Your task to perform on an android device: Add "jbl charge 4" to the cart on amazon, then select checkout. Image 0: 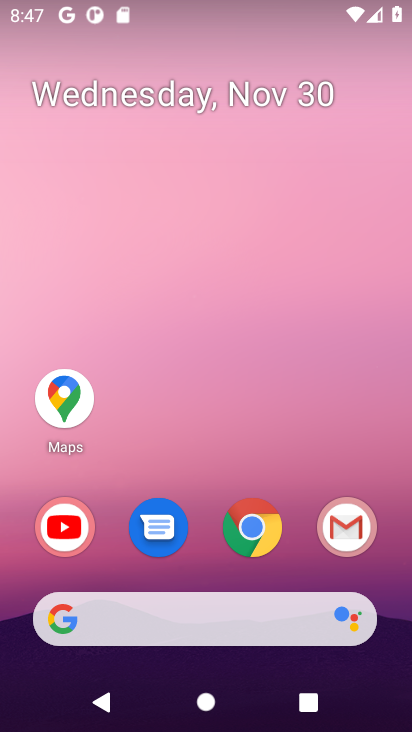
Step 0: click (250, 520)
Your task to perform on an android device: Add "jbl charge 4" to the cart on amazon, then select checkout. Image 1: 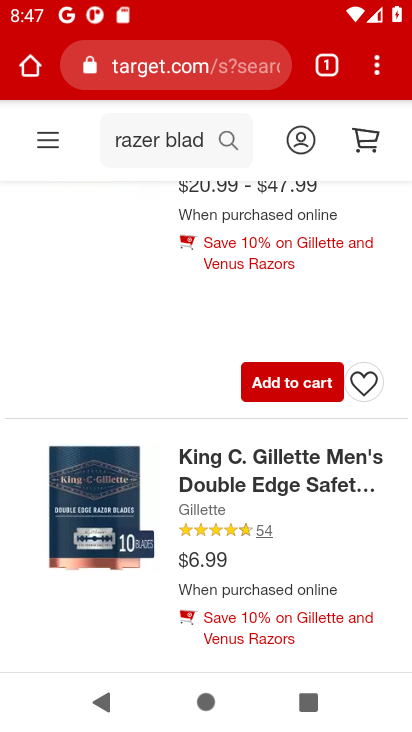
Step 1: click (219, 61)
Your task to perform on an android device: Add "jbl charge 4" to the cart on amazon, then select checkout. Image 2: 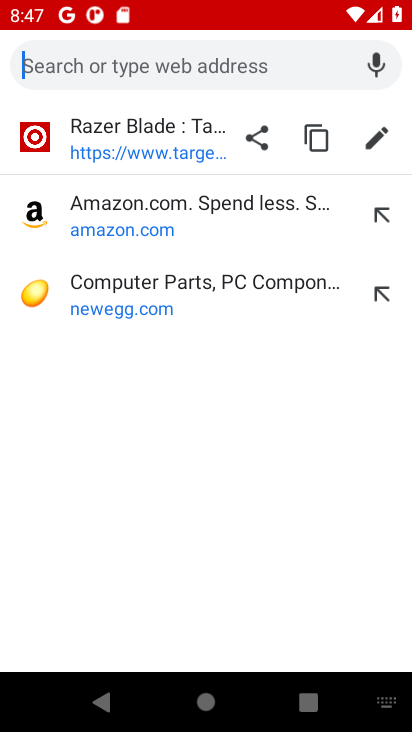
Step 2: click (152, 204)
Your task to perform on an android device: Add "jbl charge 4" to the cart on amazon, then select checkout. Image 3: 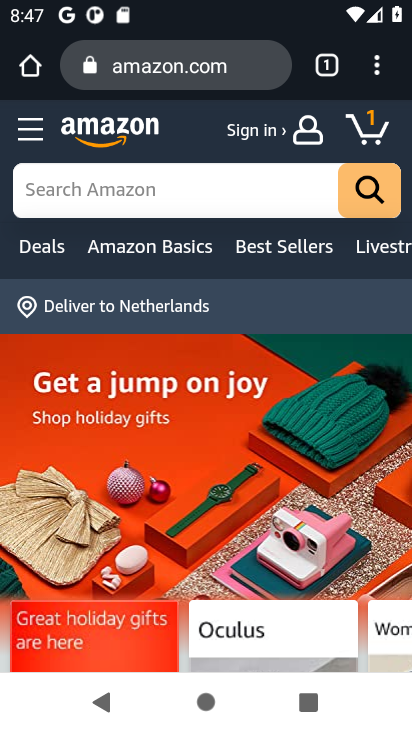
Step 3: click (221, 179)
Your task to perform on an android device: Add "jbl charge 4" to the cart on amazon, then select checkout. Image 4: 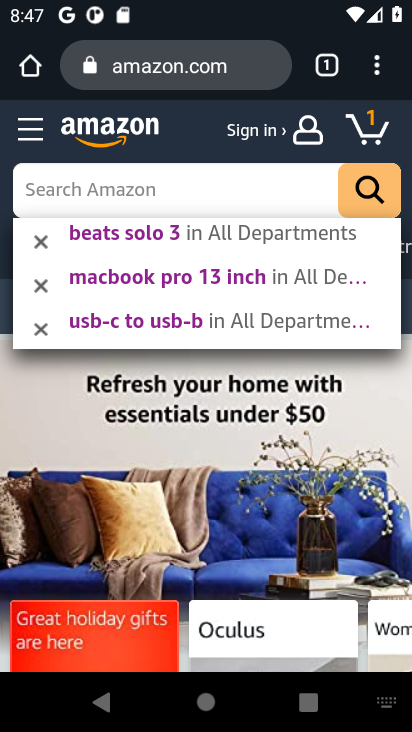
Step 4: type "jbl charge 4"
Your task to perform on an android device: Add "jbl charge 4" to the cart on amazon, then select checkout. Image 5: 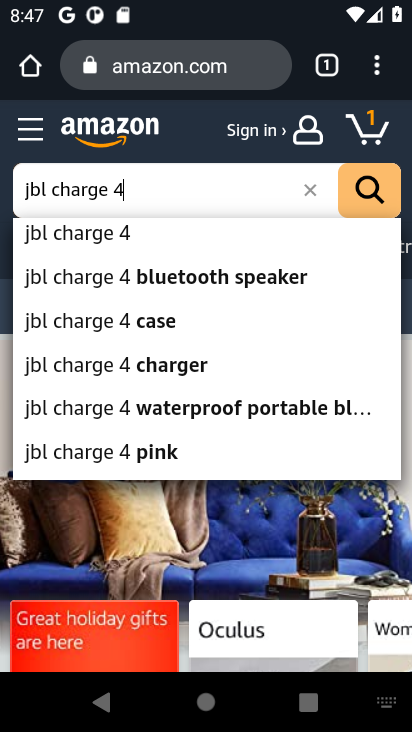
Step 5: press enter
Your task to perform on an android device: Add "jbl charge 4" to the cart on amazon, then select checkout. Image 6: 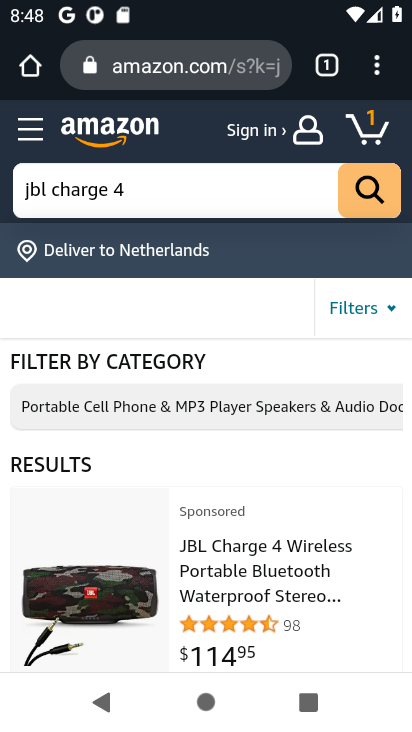
Step 6: drag from (231, 565) to (245, 345)
Your task to perform on an android device: Add "jbl charge 4" to the cart on amazon, then select checkout. Image 7: 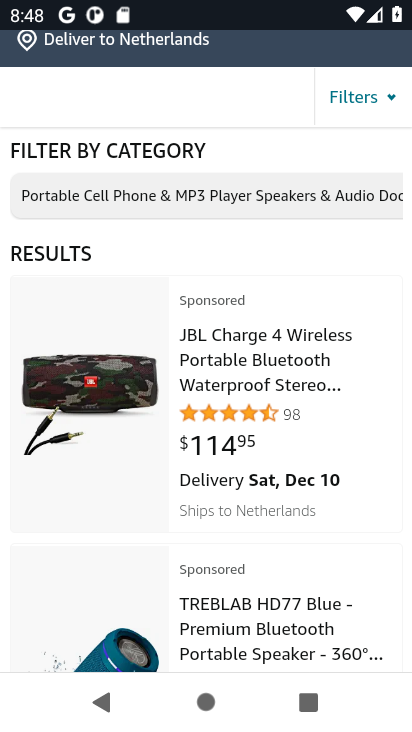
Step 7: click (96, 357)
Your task to perform on an android device: Add "jbl charge 4" to the cart on amazon, then select checkout. Image 8: 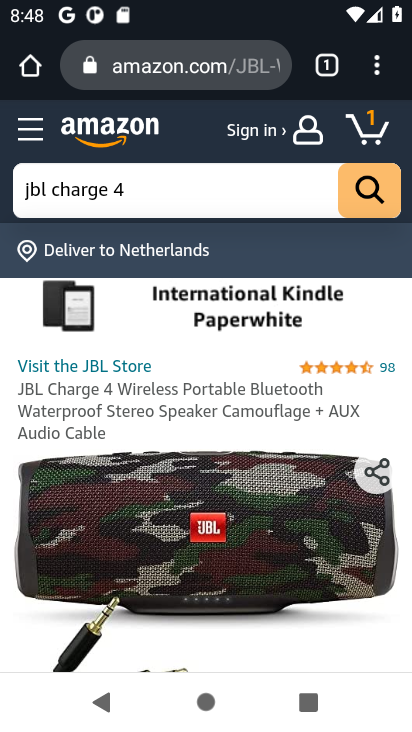
Step 8: drag from (272, 544) to (348, 21)
Your task to perform on an android device: Add "jbl charge 4" to the cart on amazon, then select checkout. Image 9: 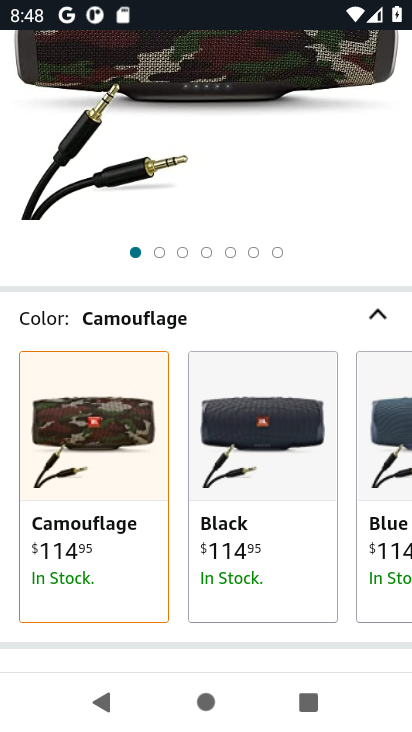
Step 9: drag from (317, 635) to (319, 0)
Your task to perform on an android device: Add "jbl charge 4" to the cart on amazon, then select checkout. Image 10: 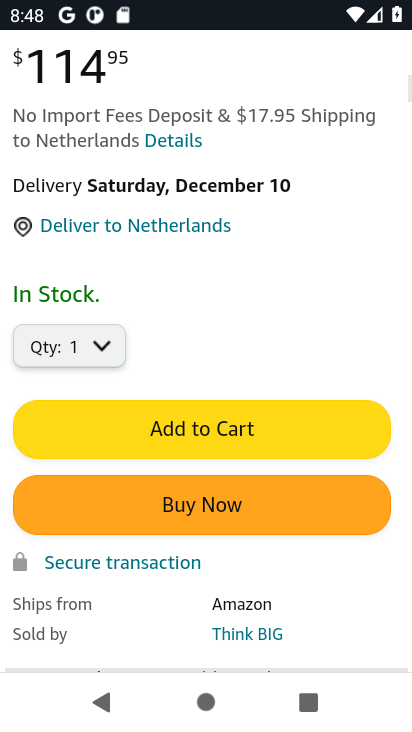
Step 10: click (259, 554)
Your task to perform on an android device: Add "jbl charge 4" to the cart on amazon, then select checkout. Image 11: 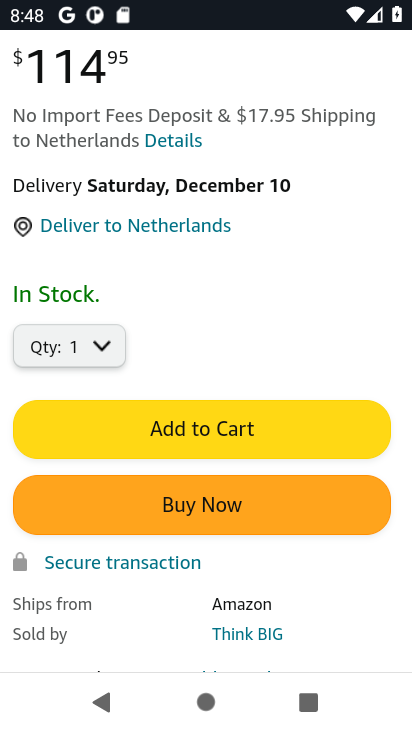
Step 11: click (241, 421)
Your task to perform on an android device: Add "jbl charge 4" to the cart on amazon, then select checkout. Image 12: 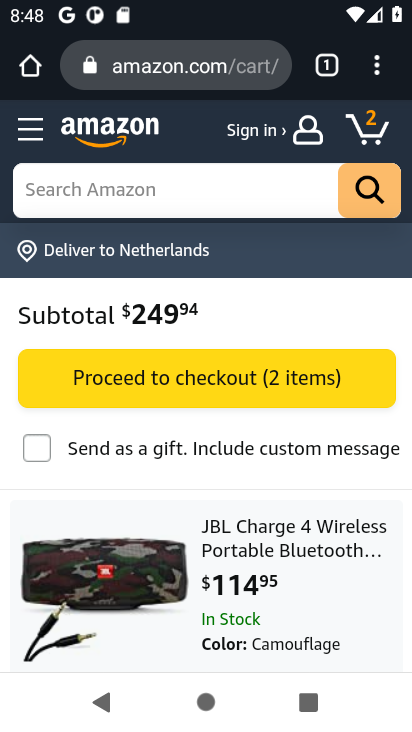
Step 12: click (224, 378)
Your task to perform on an android device: Add "jbl charge 4" to the cart on amazon, then select checkout. Image 13: 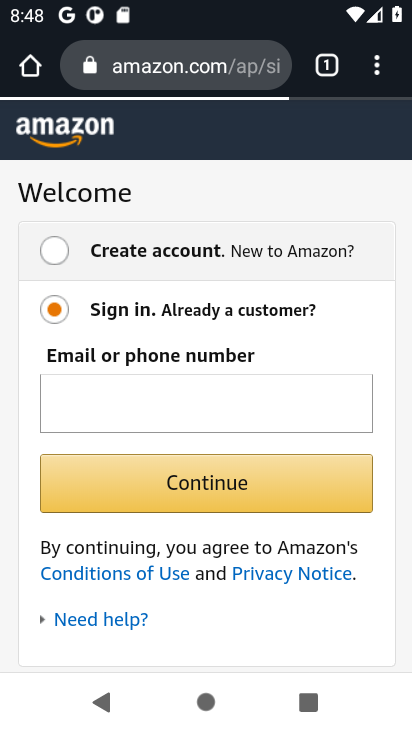
Step 13: task complete